Your task to perform on an android device: What's the weather going to be tomorrow? Image 0: 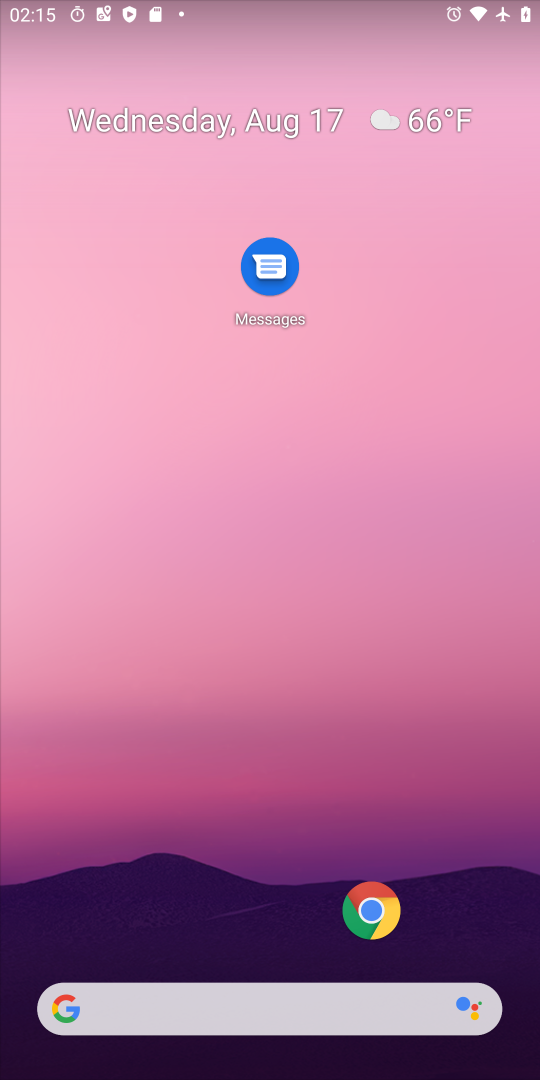
Step 0: click (449, 111)
Your task to perform on an android device: What's the weather going to be tomorrow? Image 1: 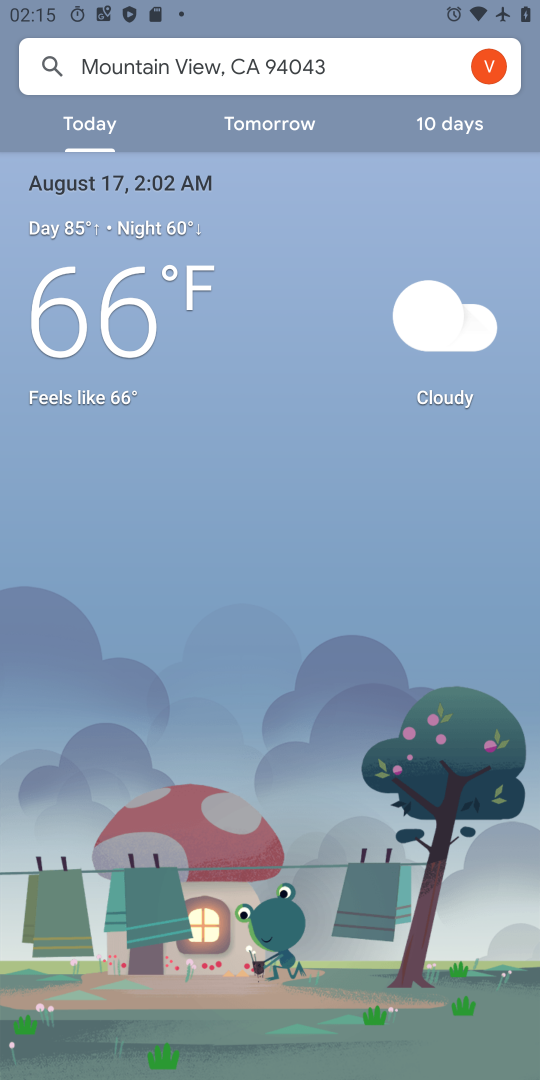
Step 1: click (233, 124)
Your task to perform on an android device: What's the weather going to be tomorrow? Image 2: 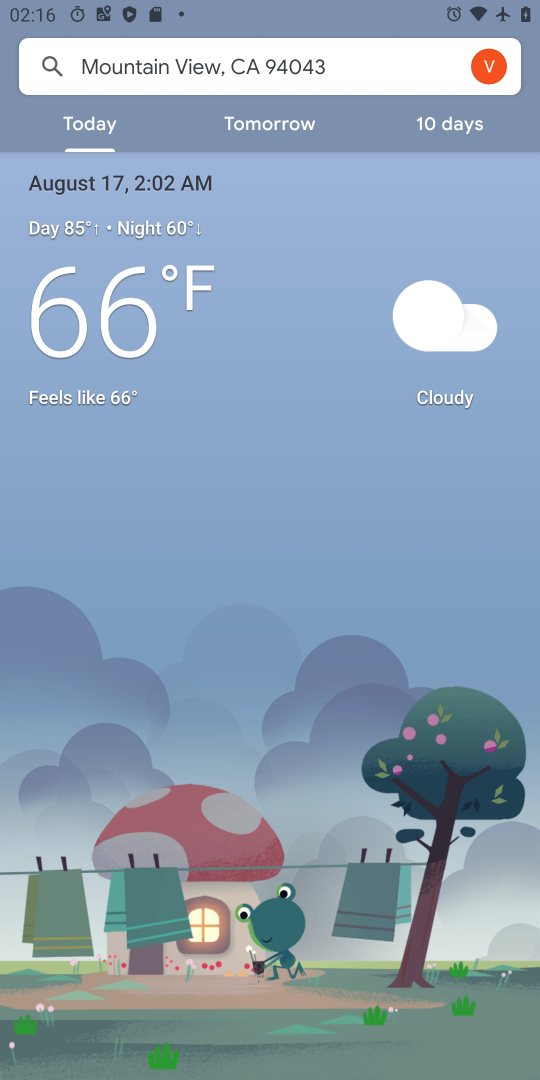
Step 2: click (273, 134)
Your task to perform on an android device: What's the weather going to be tomorrow? Image 3: 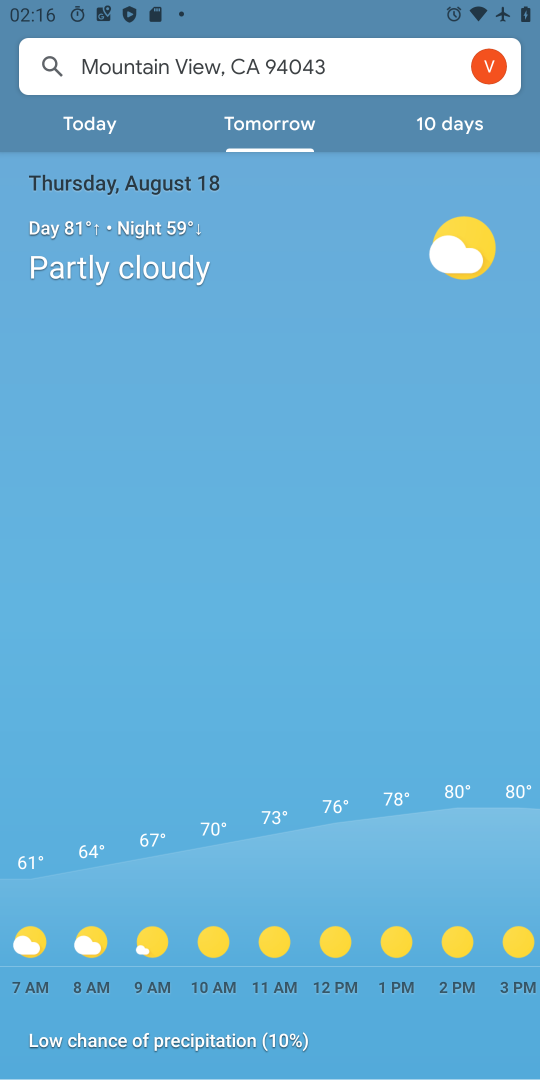
Step 3: task complete